Your task to perform on an android device: What is the news today? Image 0: 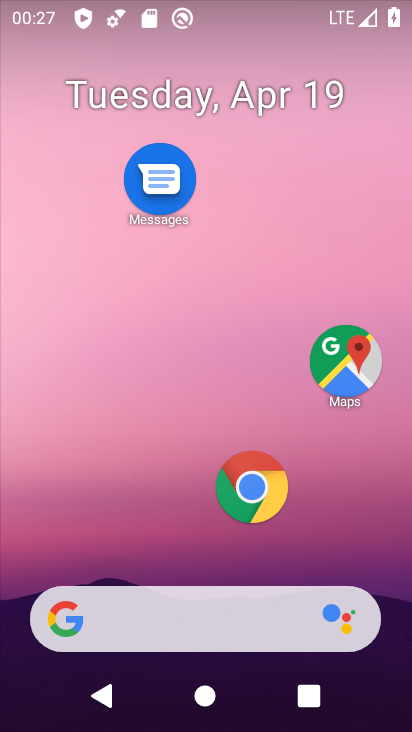
Step 0: drag from (13, 320) to (399, 348)
Your task to perform on an android device: What is the news today? Image 1: 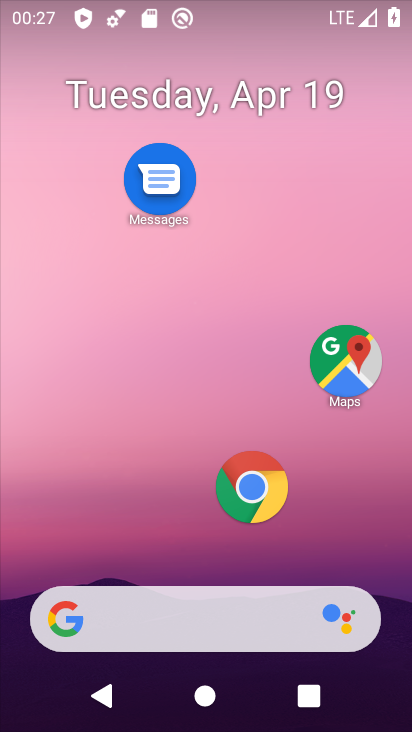
Step 1: task complete